Your task to perform on an android device: Open Chrome and go to the settings page Image 0: 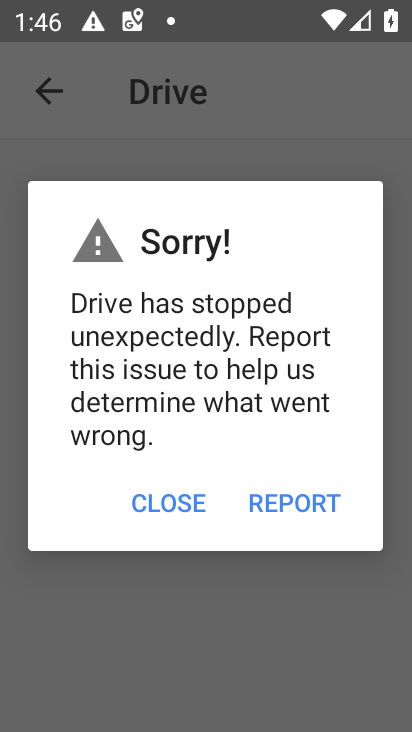
Step 0: click (191, 521)
Your task to perform on an android device: Open Chrome and go to the settings page Image 1: 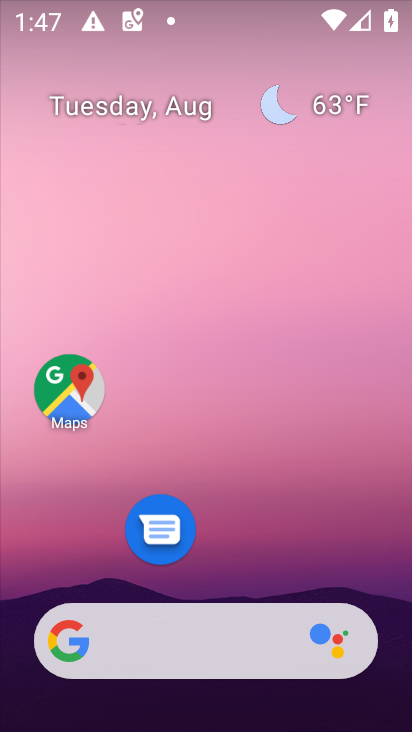
Step 1: drag from (240, 593) to (147, 62)
Your task to perform on an android device: Open Chrome and go to the settings page Image 2: 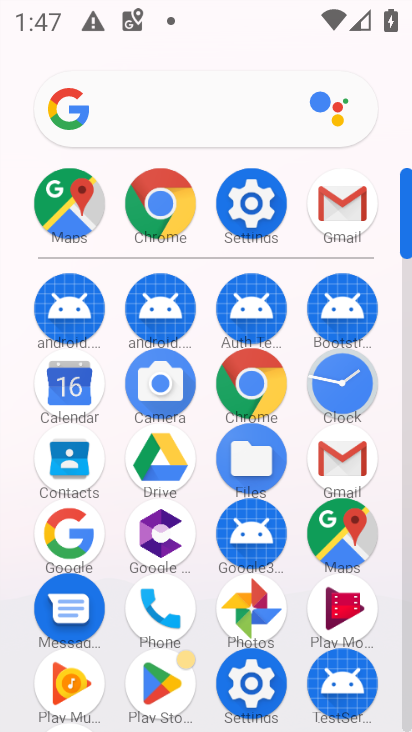
Step 2: click (140, 204)
Your task to perform on an android device: Open Chrome and go to the settings page Image 3: 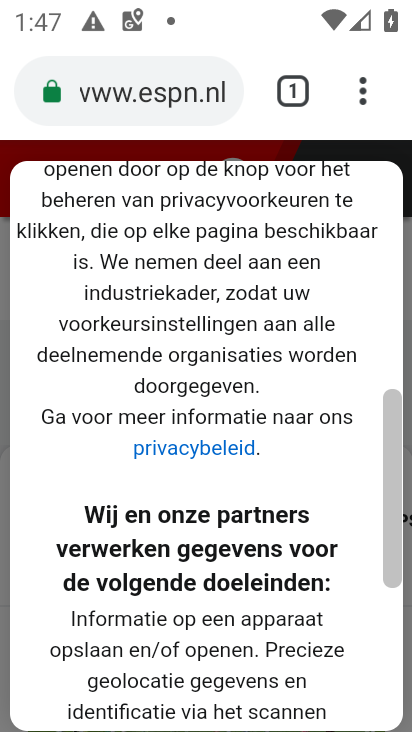
Step 3: click (368, 99)
Your task to perform on an android device: Open Chrome and go to the settings page Image 4: 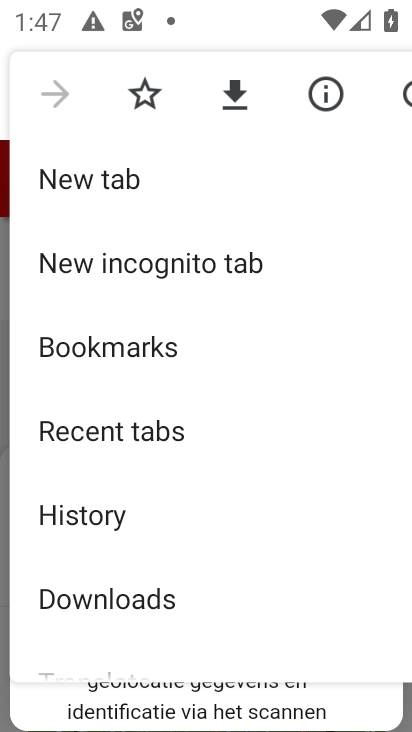
Step 4: drag from (164, 609) to (162, 437)
Your task to perform on an android device: Open Chrome and go to the settings page Image 5: 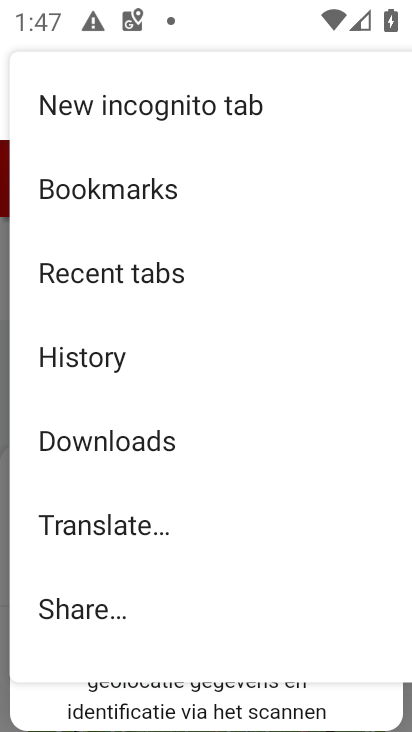
Step 5: drag from (173, 609) to (135, 402)
Your task to perform on an android device: Open Chrome and go to the settings page Image 6: 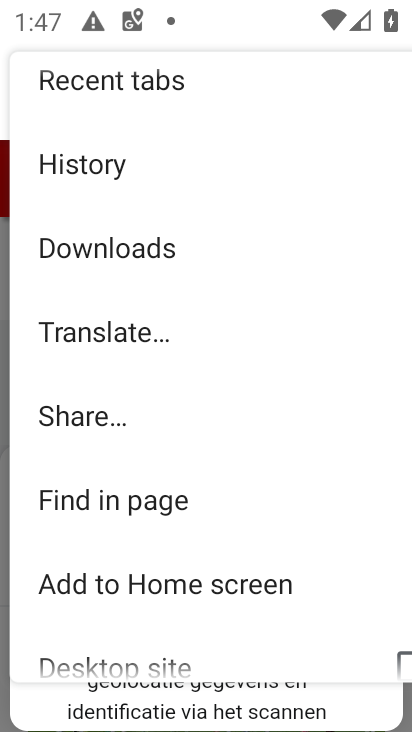
Step 6: drag from (176, 575) to (135, 216)
Your task to perform on an android device: Open Chrome and go to the settings page Image 7: 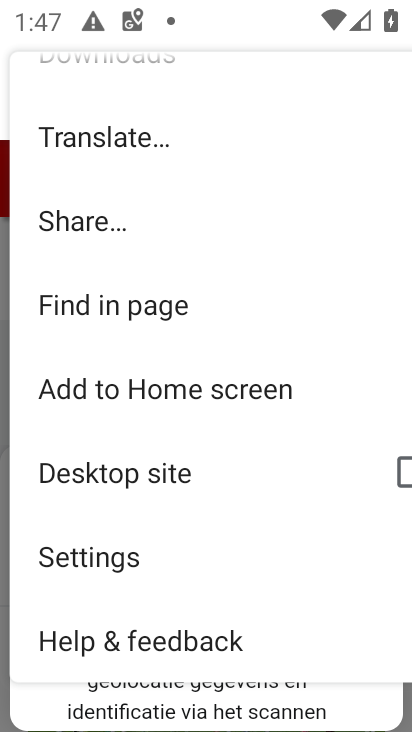
Step 7: click (137, 548)
Your task to perform on an android device: Open Chrome and go to the settings page Image 8: 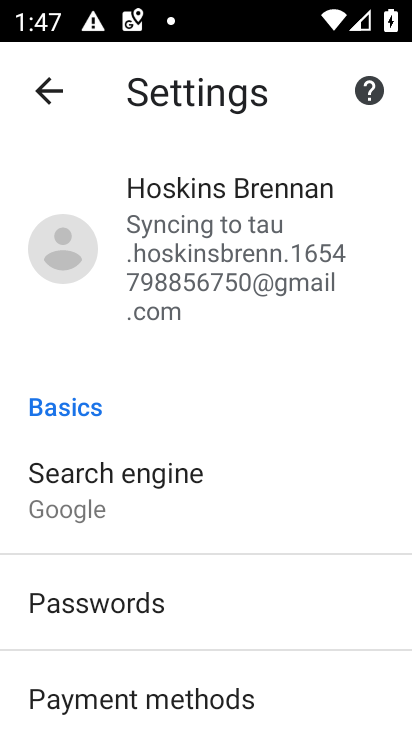
Step 8: task complete